Your task to perform on an android device: turn notification dots off Image 0: 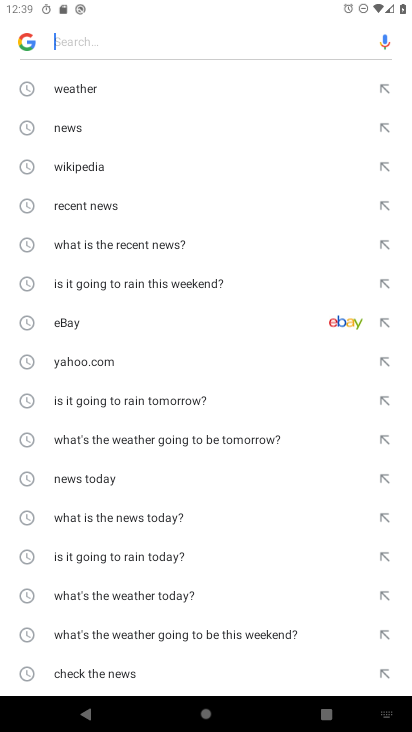
Step 0: press home button
Your task to perform on an android device: turn notification dots off Image 1: 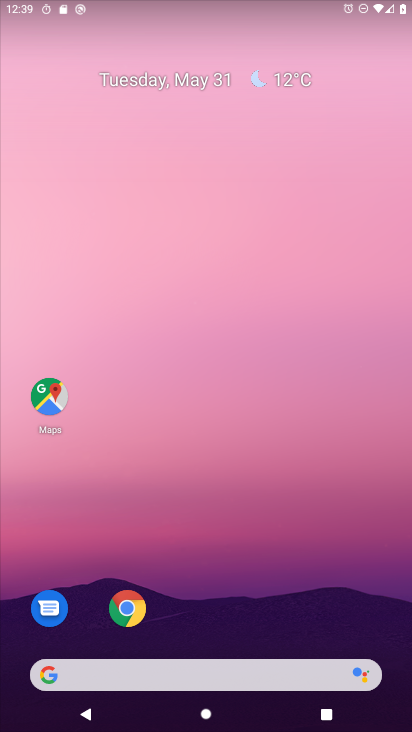
Step 1: drag from (234, 653) to (262, 29)
Your task to perform on an android device: turn notification dots off Image 2: 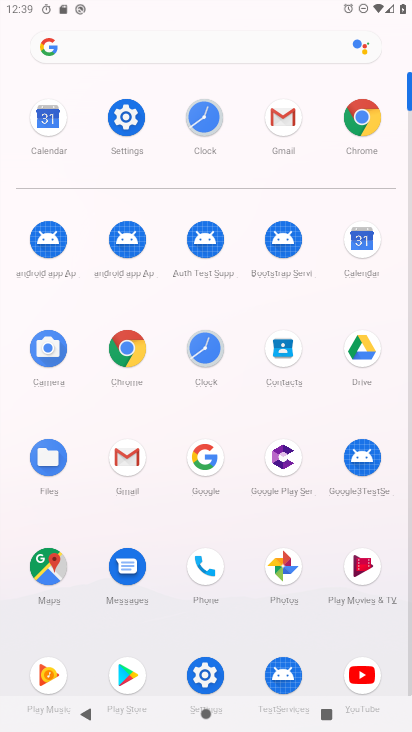
Step 2: click (127, 116)
Your task to perform on an android device: turn notification dots off Image 3: 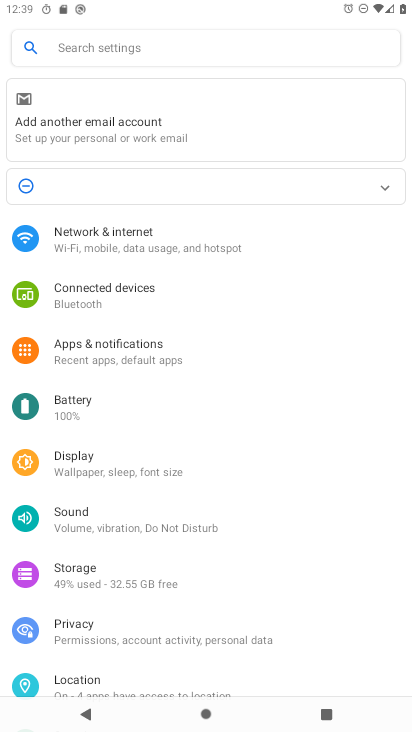
Step 3: click (135, 362)
Your task to perform on an android device: turn notification dots off Image 4: 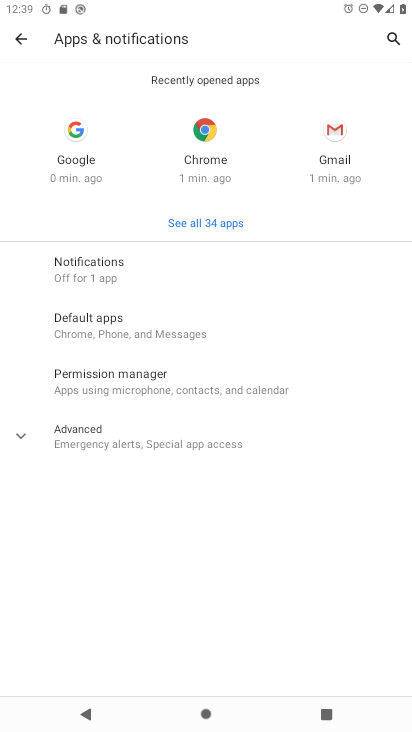
Step 4: click (91, 281)
Your task to perform on an android device: turn notification dots off Image 5: 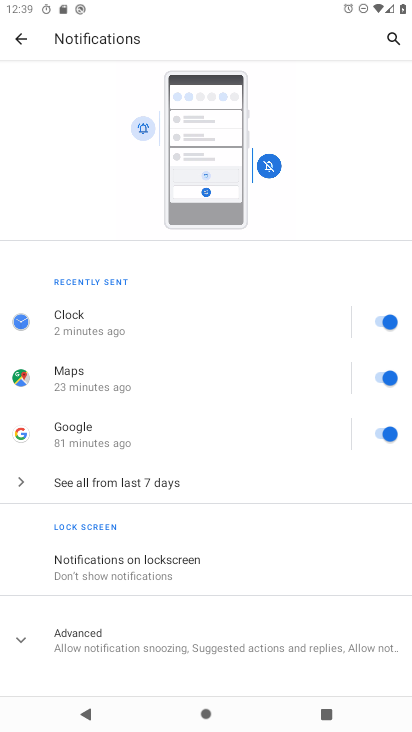
Step 5: click (21, 642)
Your task to perform on an android device: turn notification dots off Image 6: 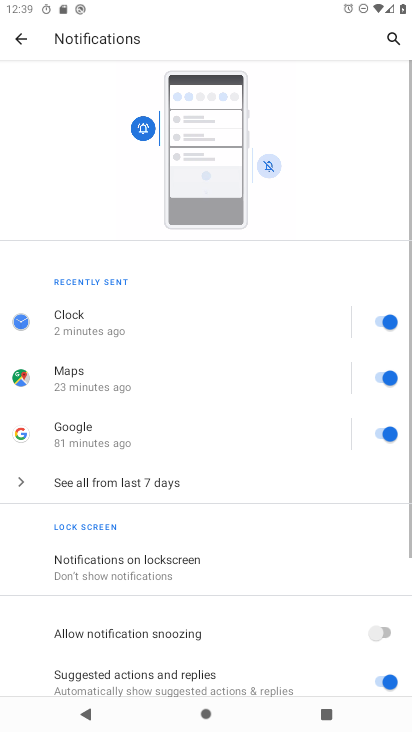
Step 6: drag from (170, 584) to (184, 382)
Your task to perform on an android device: turn notification dots off Image 7: 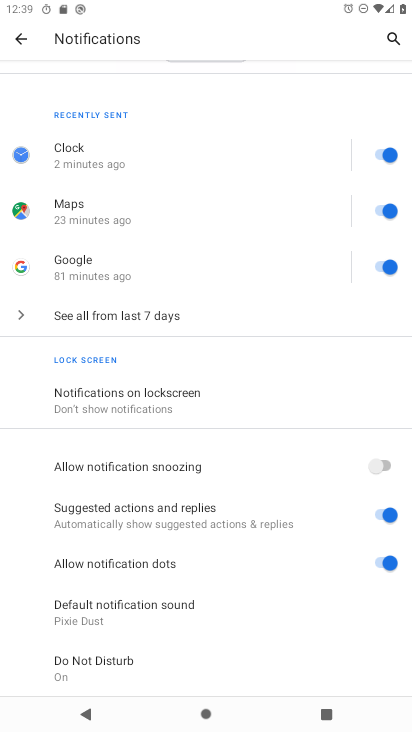
Step 7: click (392, 566)
Your task to perform on an android device: turn notification dots off Image 8: 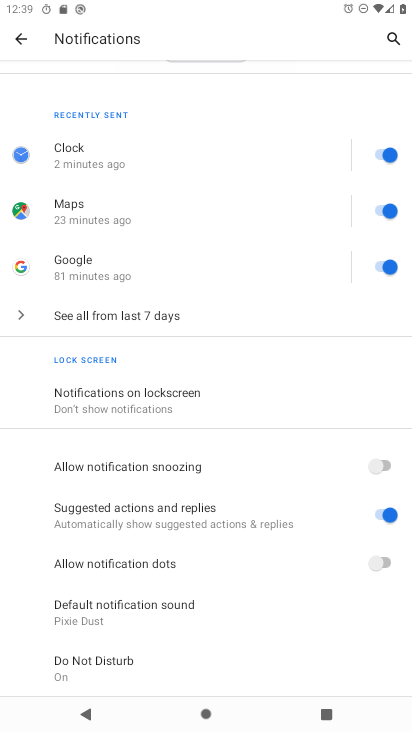
Step 8: task complete